Your task to perform on an android device: check android version Image 0: 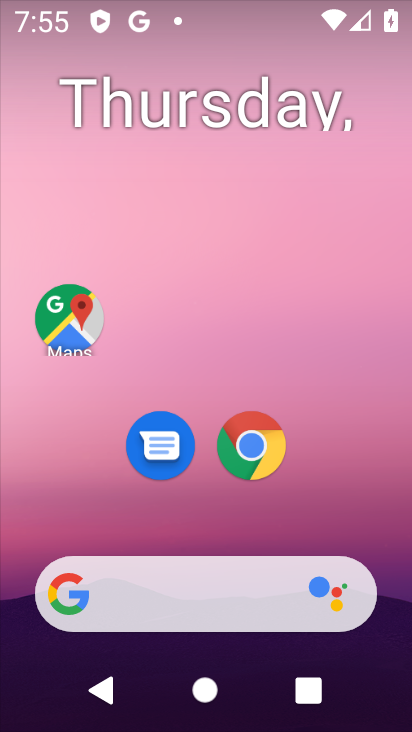
Step 0: drag from (354, 468) to (324, 78)
Your task to perform on an android device: check android version Image 1: 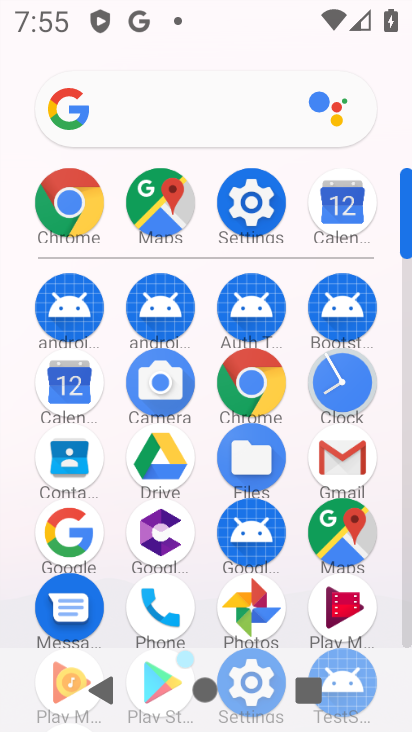
Step 1: click (228, 200)
Your task to perform on an android device: check android version Image 2: 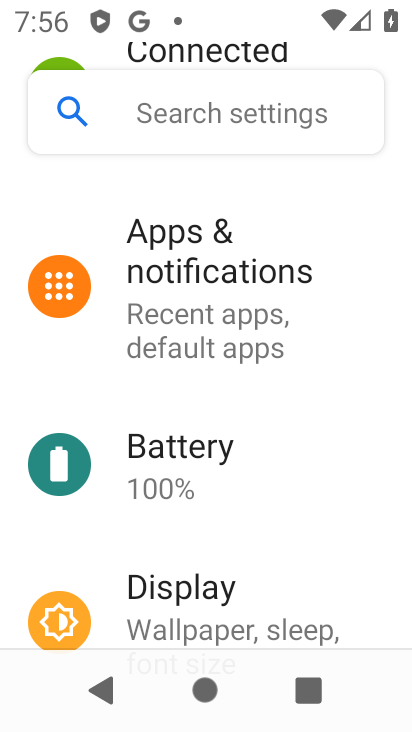
Step 2: drag from (296, 438) to (315, 210)
Your task to perform on an android device: check android version Image 3: 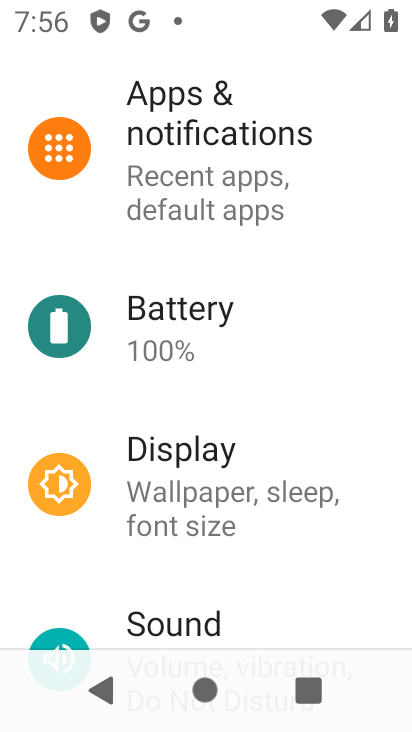
Step 3: drag from (323, 600) to (327, 212)
Your task to perform on an android device: check android version Image 4: 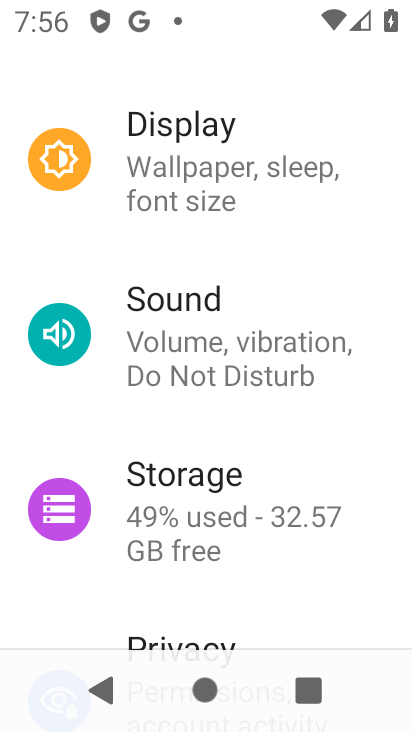
Step 4: drag from (259, 508) to (267, 125)
Your task to perform on an android device: check android version Image 5: 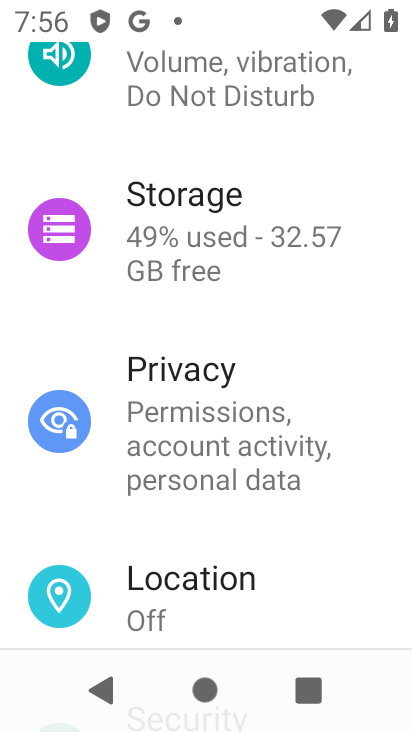
Step 5: drag from (225, 598) to (256, 202)
Your task to perform on an android device: check android version Image 6: 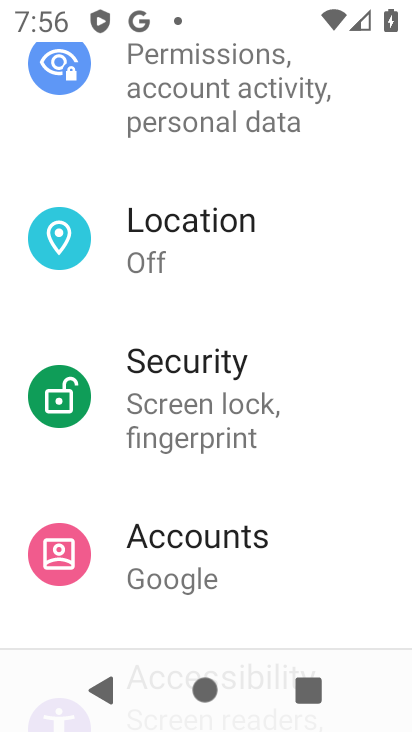
Step 6: drag from (157, 608) to (213, 269)
Your task to perform on an android device: check android version Image 7: 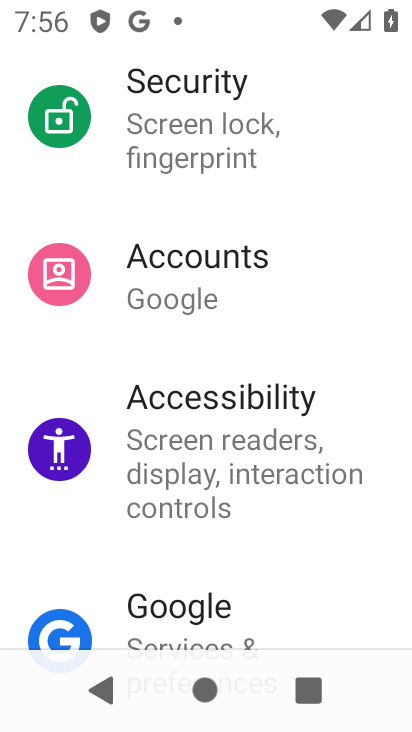
Step 7: drag from (214, 628) to (252, 240)
Your task to perform on an android device: check android version Image 8: 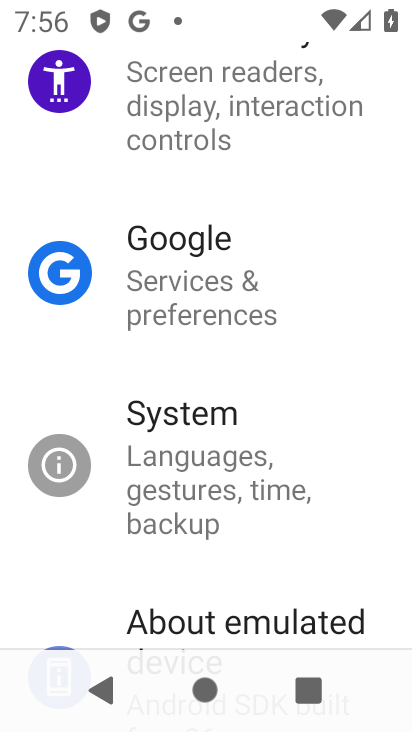
Step 8: drag from (218, 528) to (234, 244)
Your task to perform on an android device: check android version Image 9: 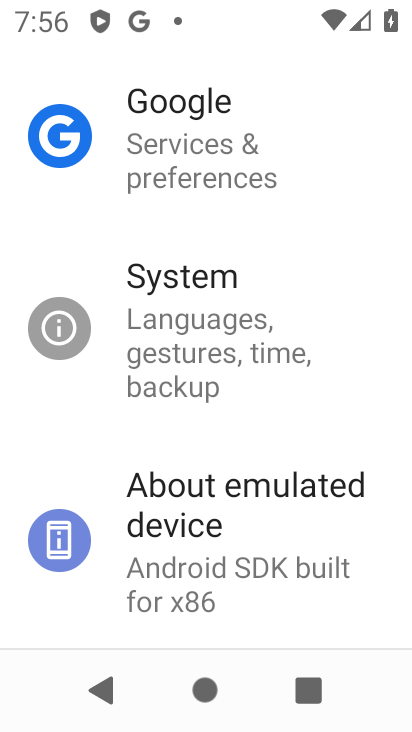
Step 9: click (233, 552)
Your task to perform on an android device: check android version Image 10: 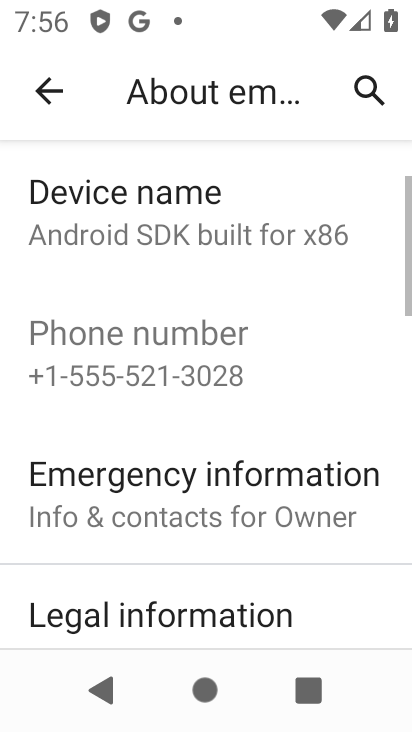
Step 10: task complete